Your task to perform on an android device: Find coffee shops on Maps Image 0: 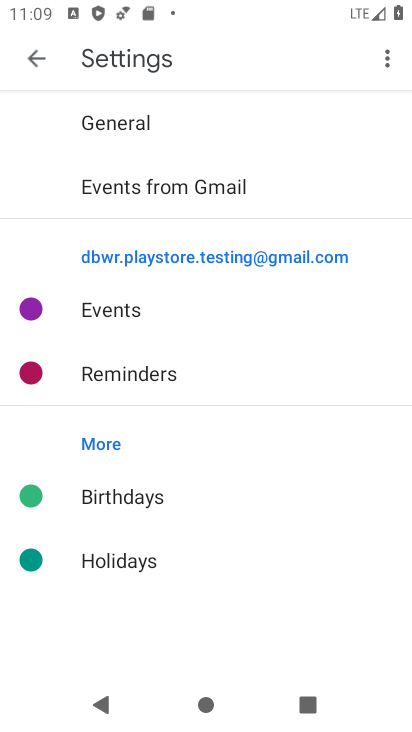
Step 0: press home button
Your task to perform on an android device: Find coffee shops on Maps Image 1: 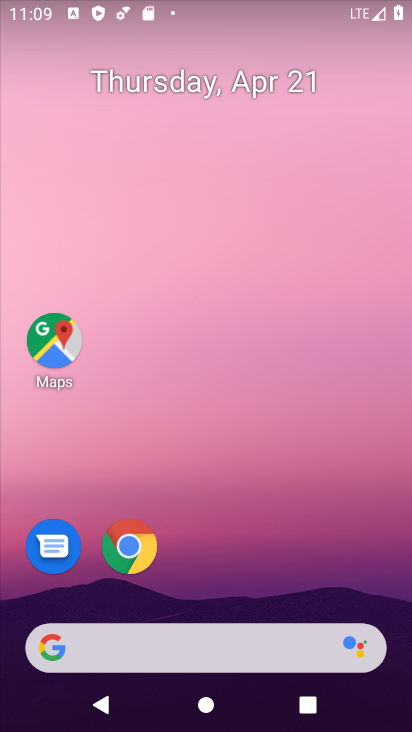
Step 1: click (52, 341)
Your task to perform on an android device: Find coffee shops on Maps Image 2: 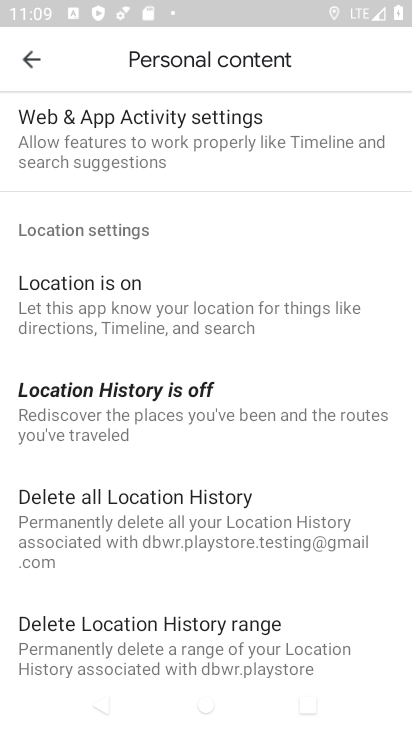
Step 2: press back button
Your task to perform on an android device: Find coffee shops on Maps Image 3: 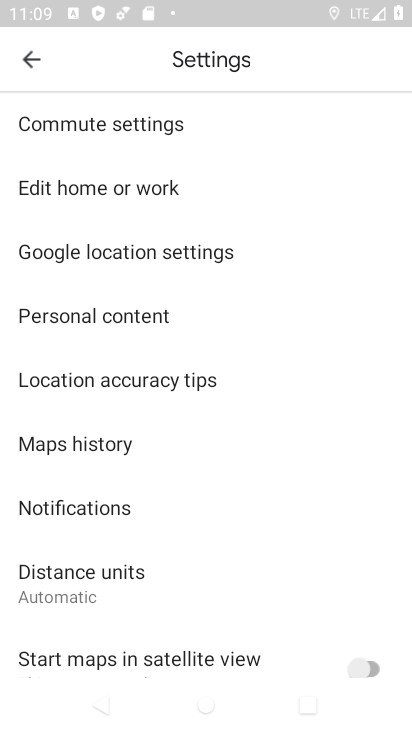
Step 3: press back button
Your task to perform on an android device: Find coffee shops on Maps Image 4: 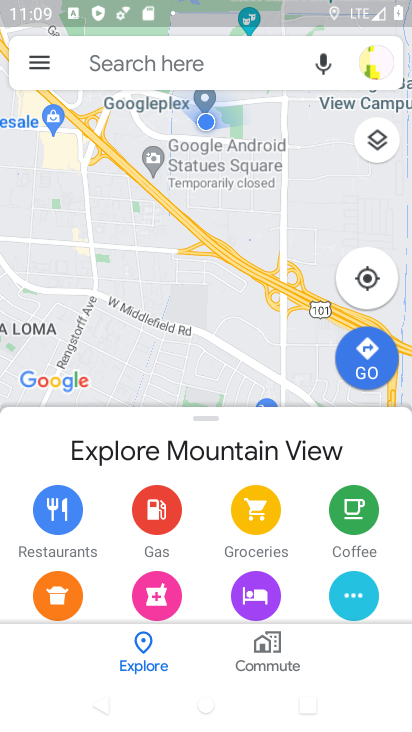
Step 4: click (106, 57)
Your task to perform on an android device: Find coffee shops on Maps Image 5: 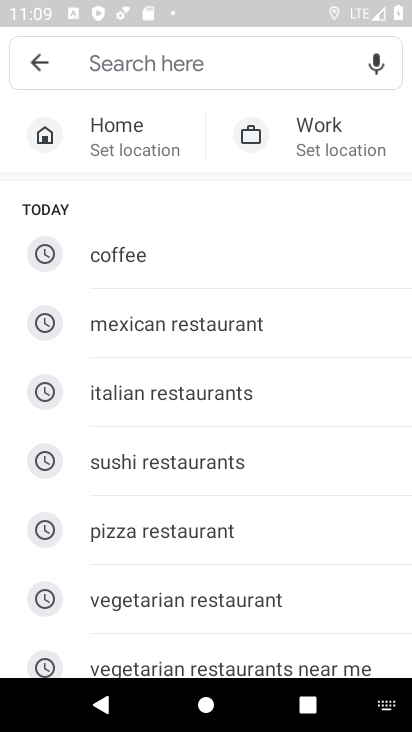
Step 5: type "coffee"
Your task to perform on an android device: Find coffee shops on Maps Image 6: 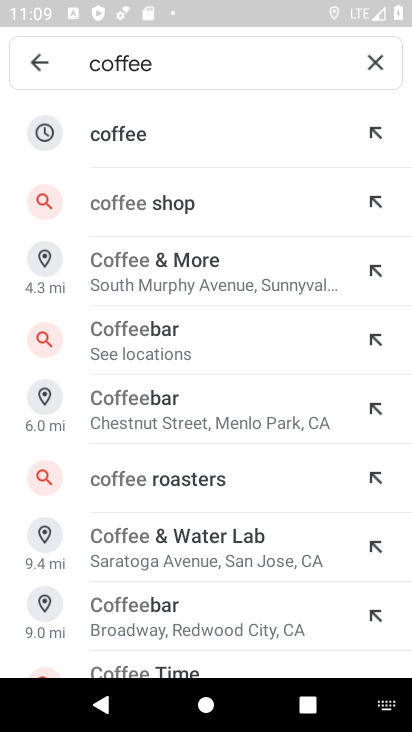
Step 6: click (111, 130)
Your task to perform on an android device: Find coffee shops on Maps Image 7: 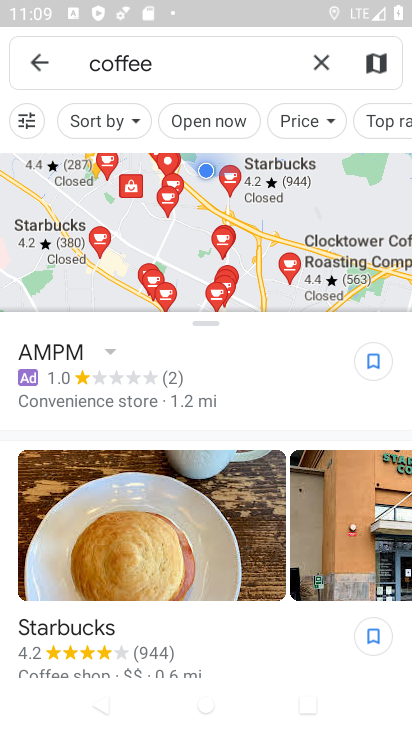
Step 7: task complete